Your task to perform on an android device: turn off location history Image 0: 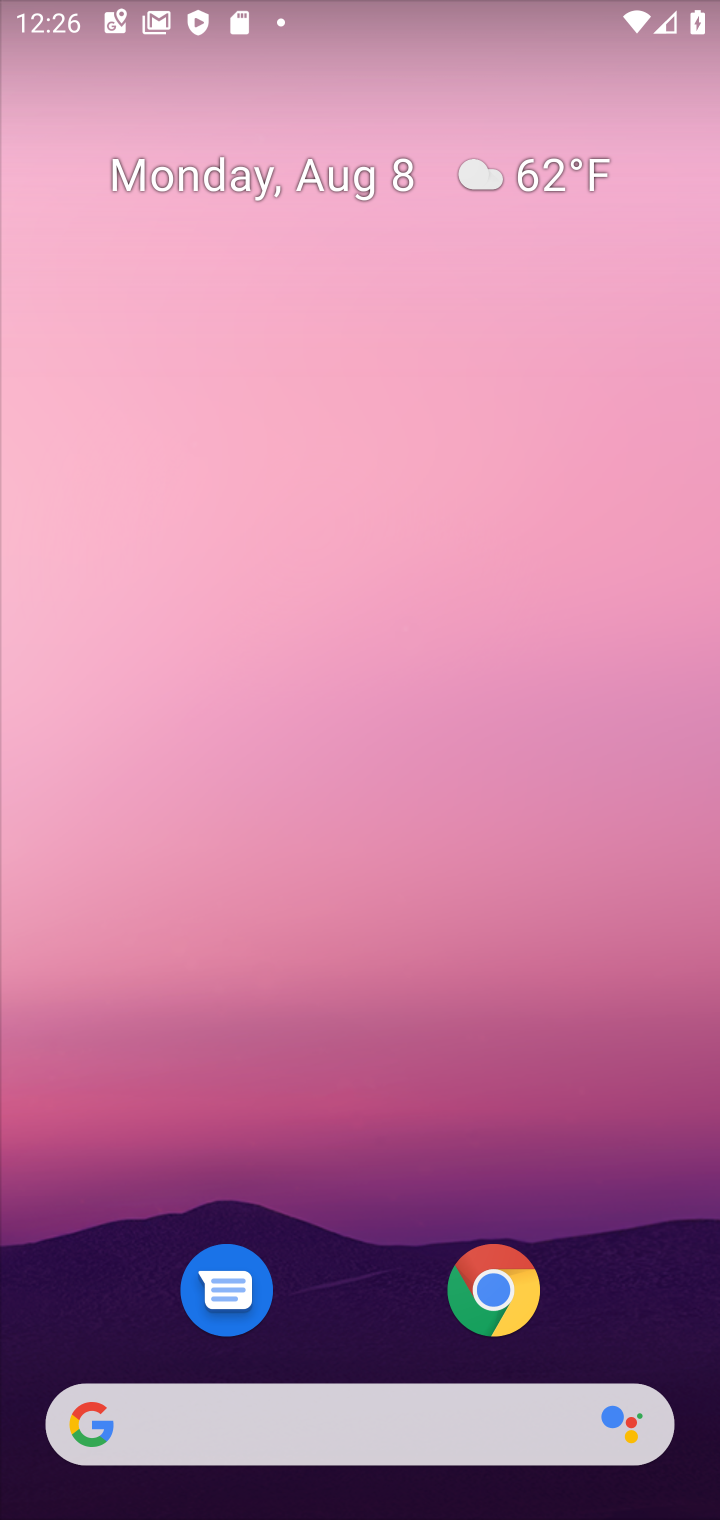
Step 0: drag from (340, 218) to (338, 136)
Your task to perform on an android device: turn off location history Image 1: 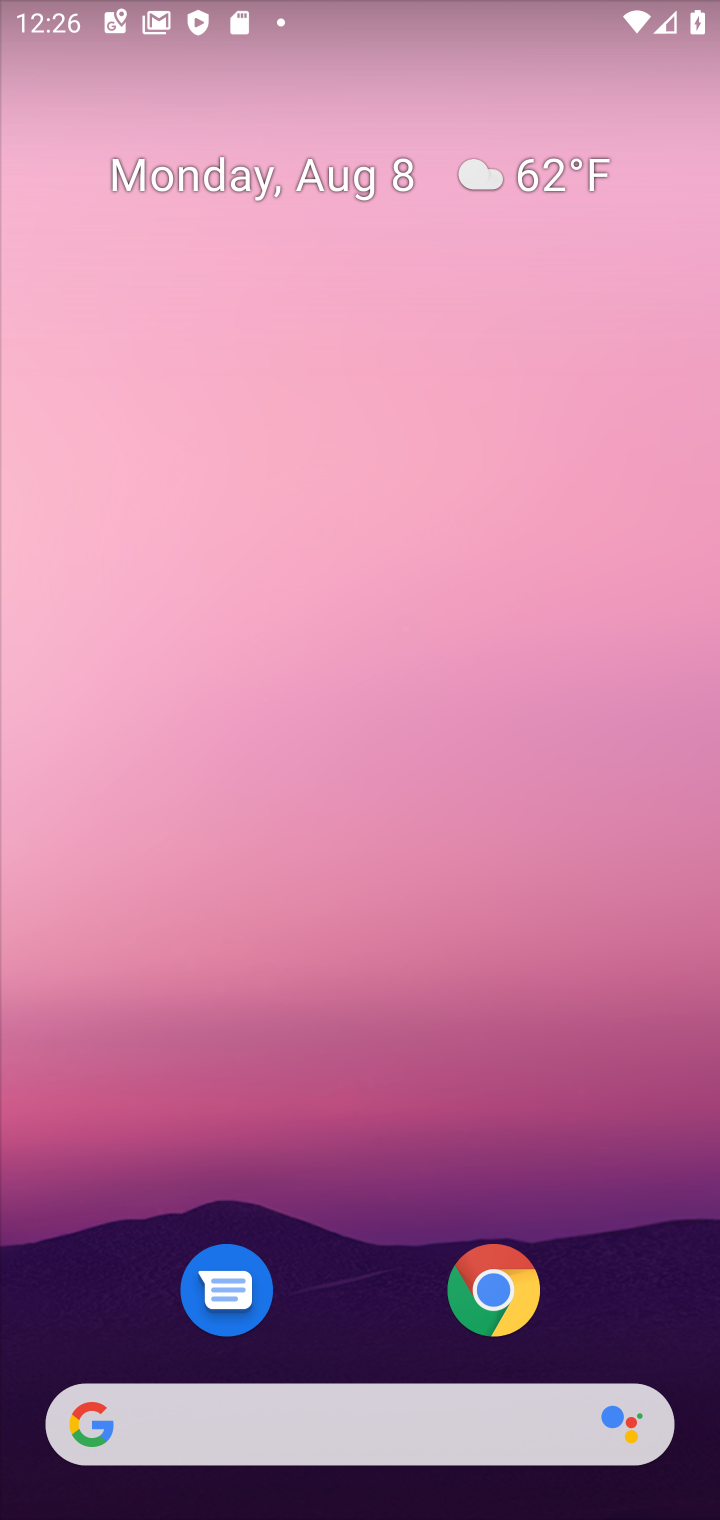
Step 1: drag from (332, 806) to (385, 198)
Your task to perform on an android device: turn off location history Image 2: 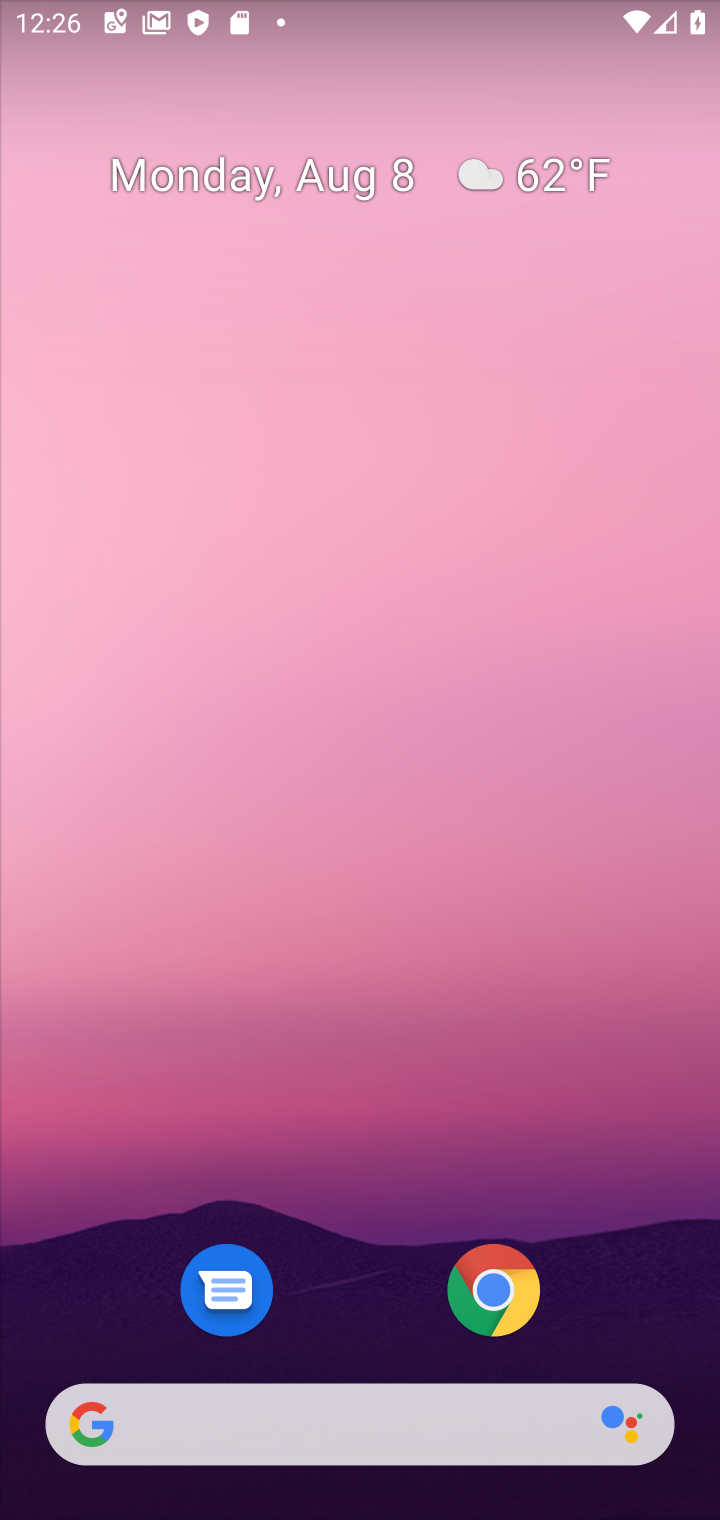
Step 2: drag from (333, 1346) to (355, 161)
Your task to perform on an android device: turn off location history Image 3: 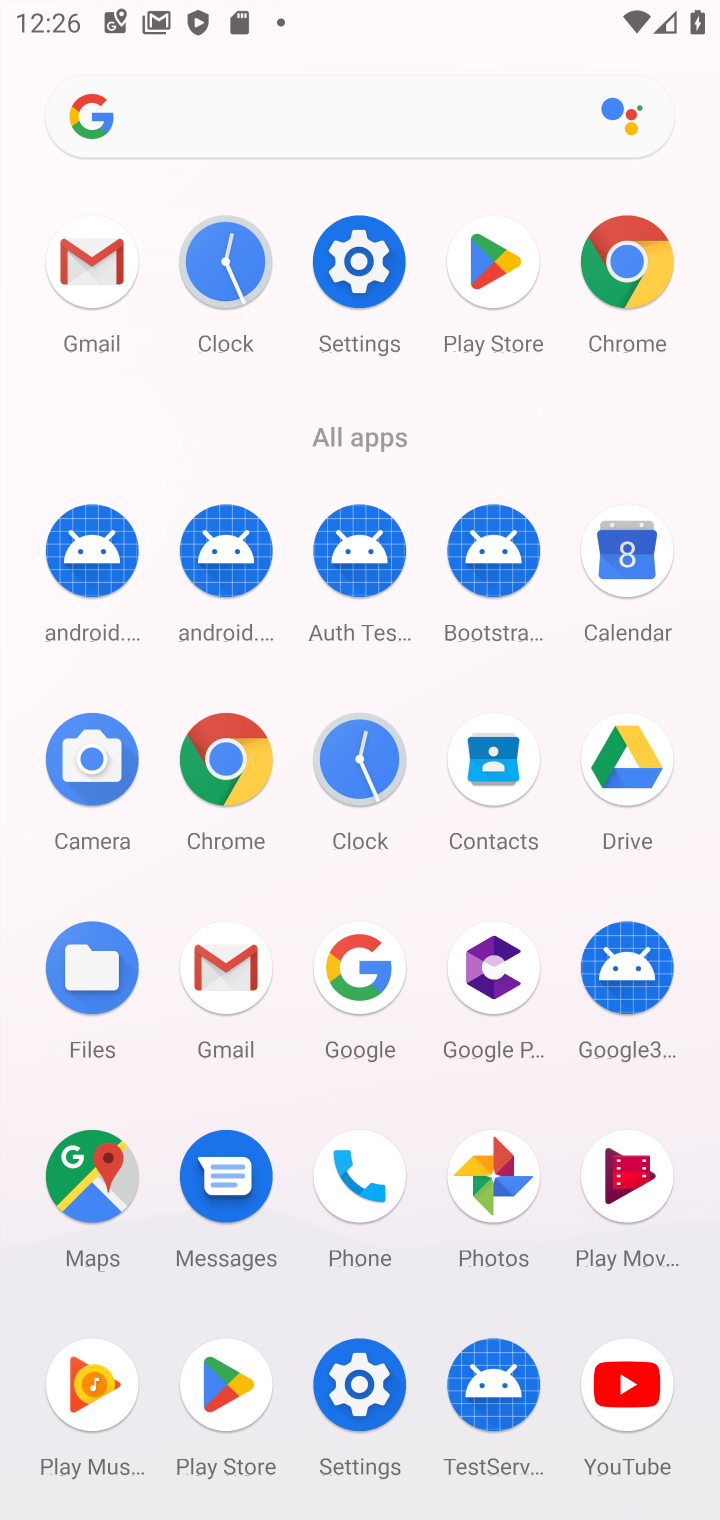
Step 3: click (356, 276)
Your task to perform on an android device: turn off location history Image 4: 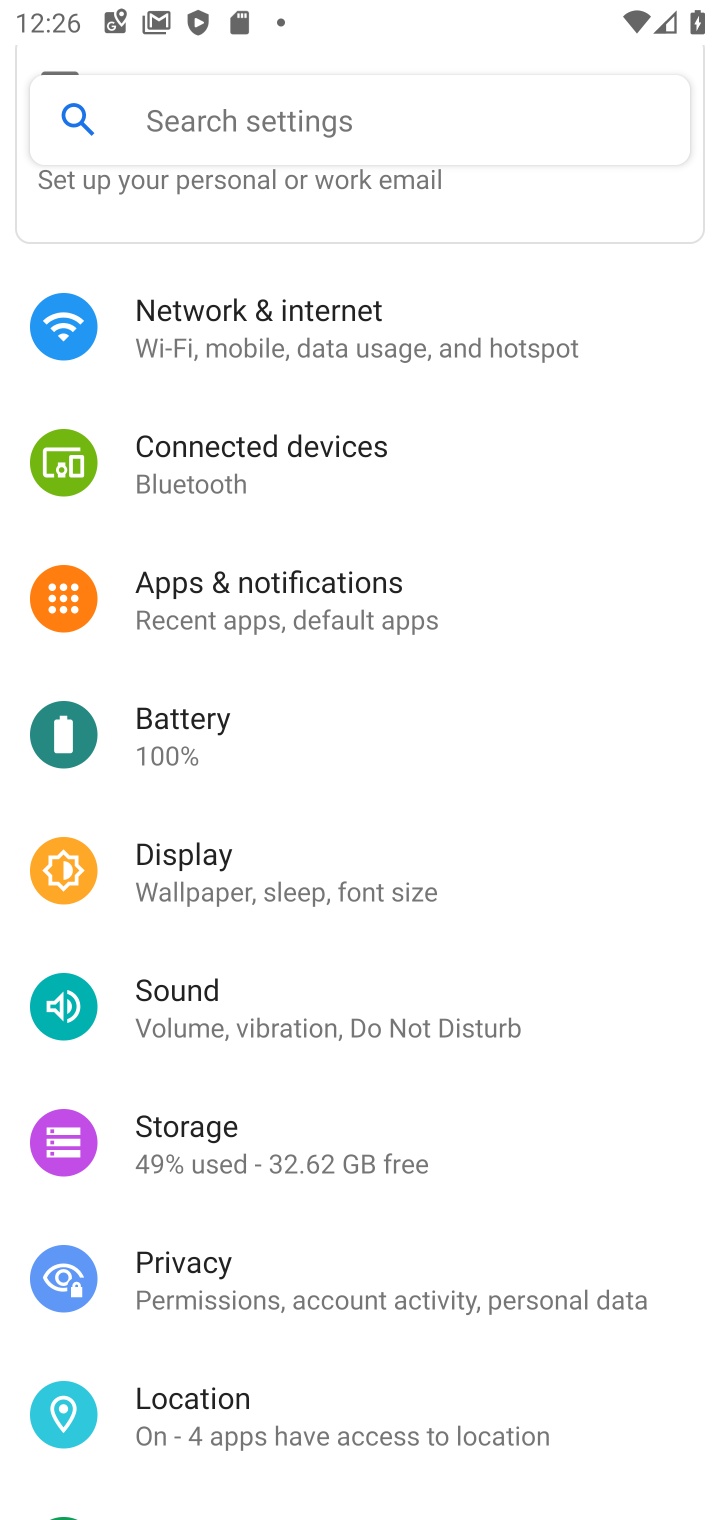
Step 4: click (218, 1396)
Your task to perform on an android device: turn off location history Image 5: 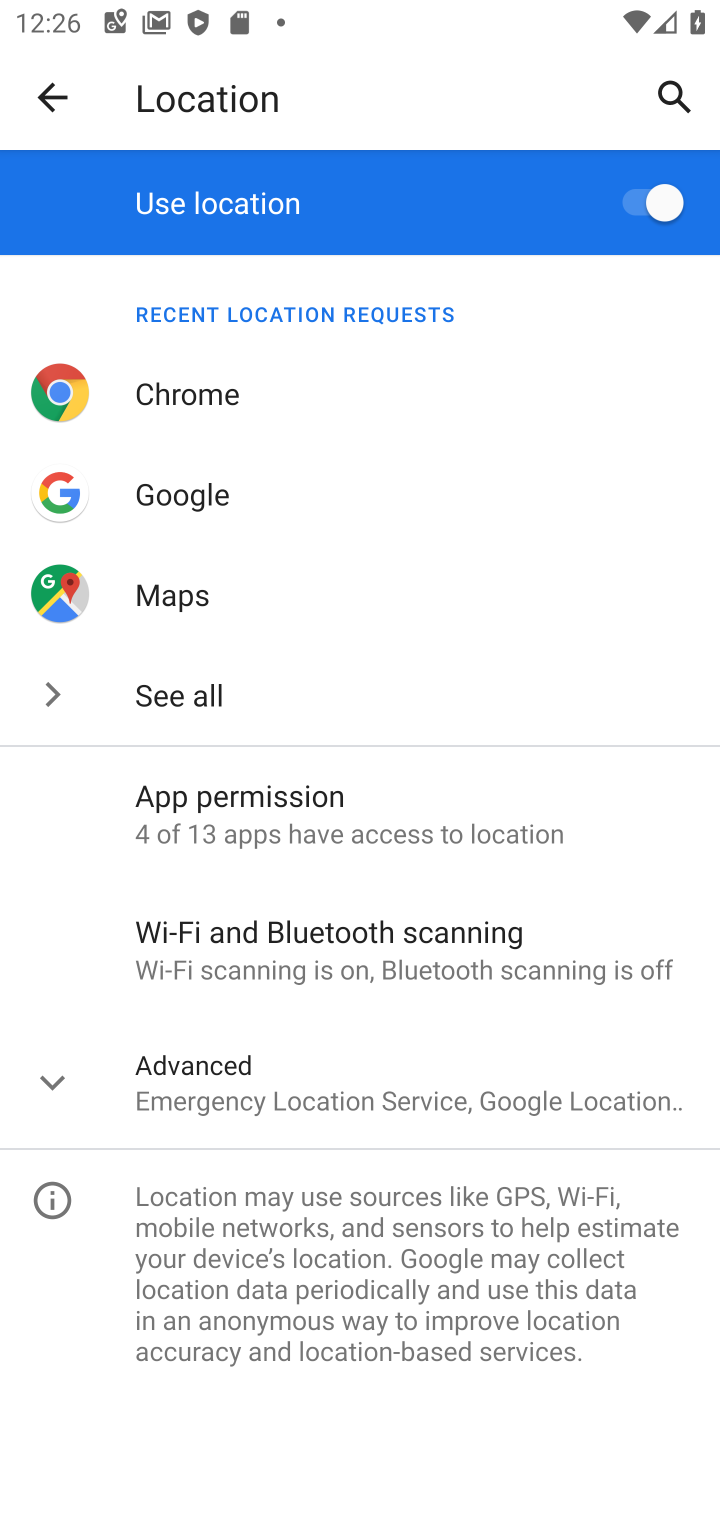
Step 5: click (370, 1114)
Your task to perform on an android device: turn off location history Image 6: 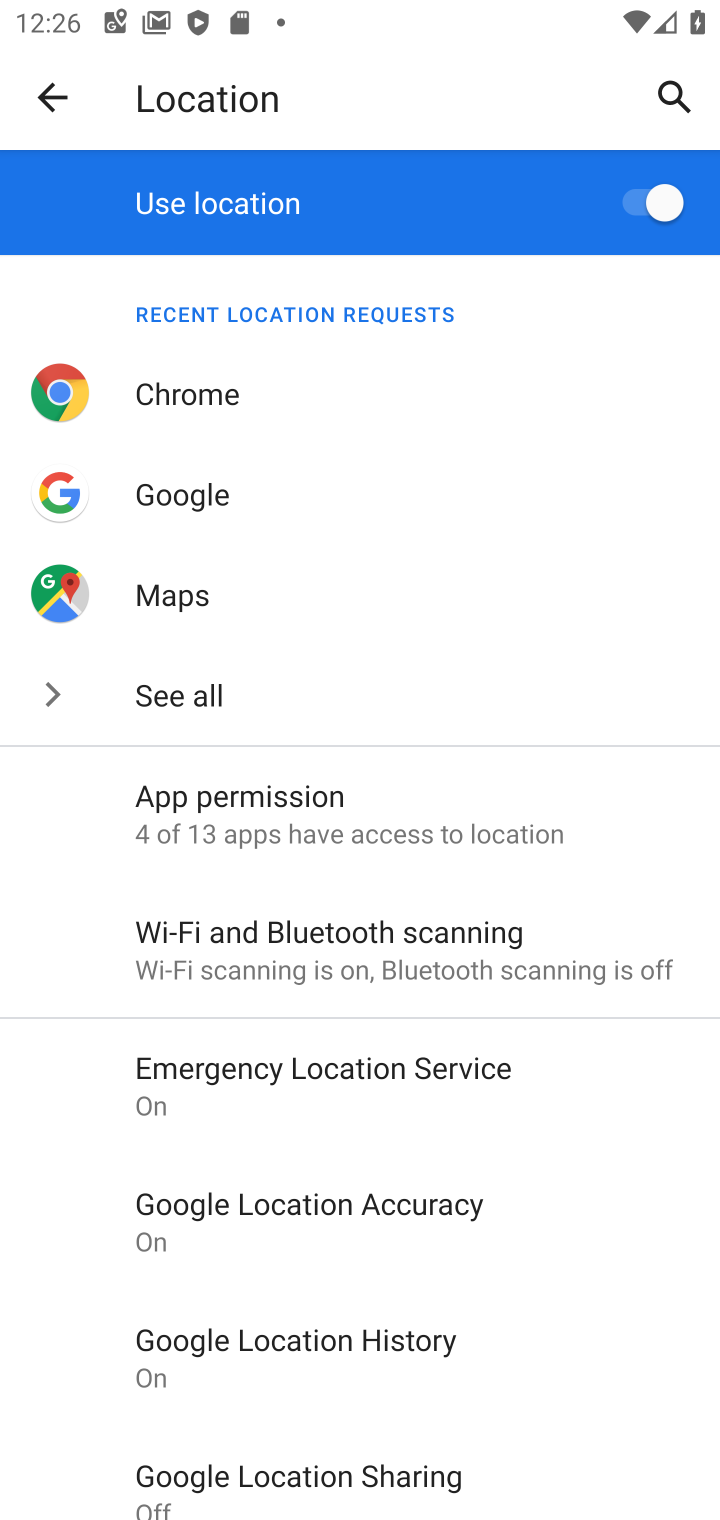
Step 6: click (301, 1319)
Your task to perform on an android device: turn off location history Image 7: 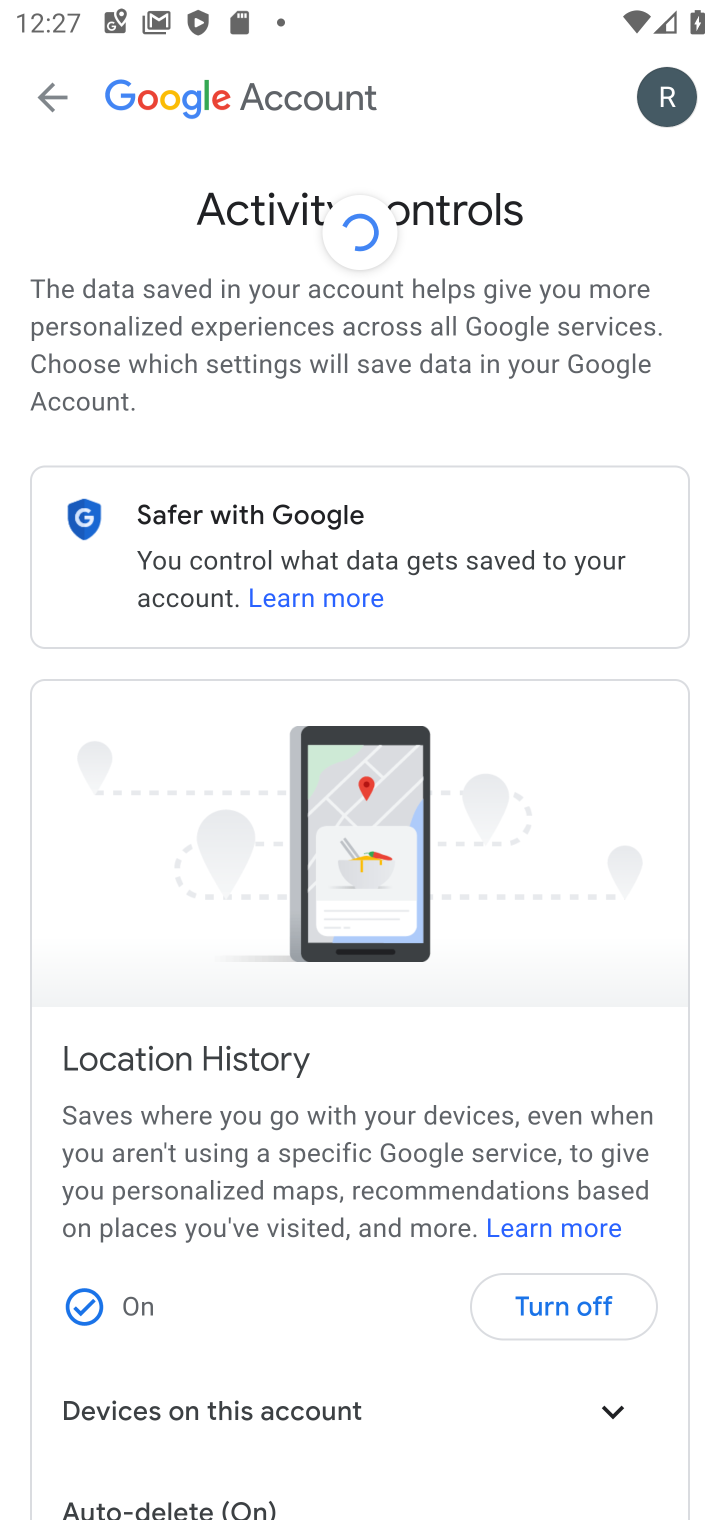
Step 7: click (547, 1292)
Your task to perform on an android device: turn off location history Image 8: 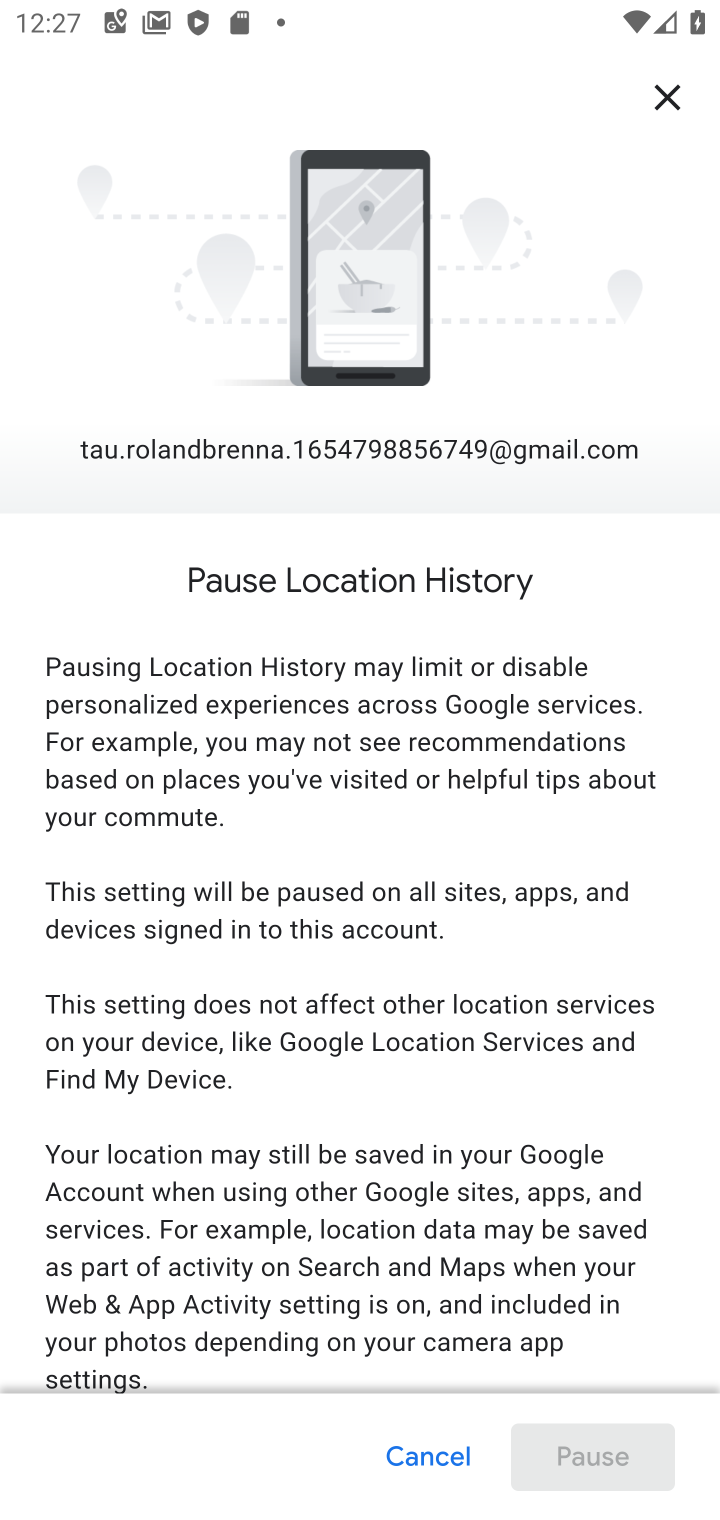
Step 8: drag from (530, 1223) to (519, 607)
Your task to perform on an android device: turn off location history Image 9: 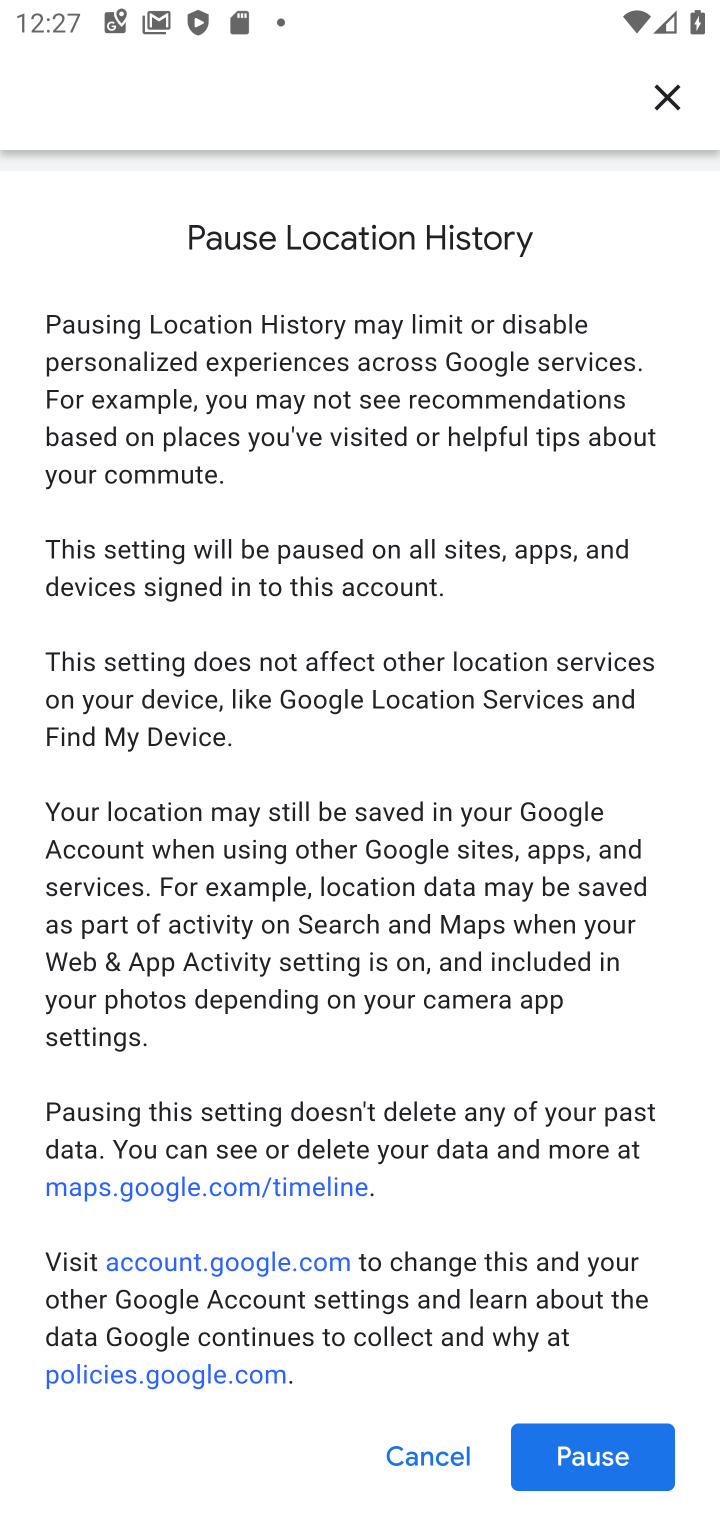
Step 9: click (579, 1456)
Your task to perform on an android device: turn off location history Image 10: 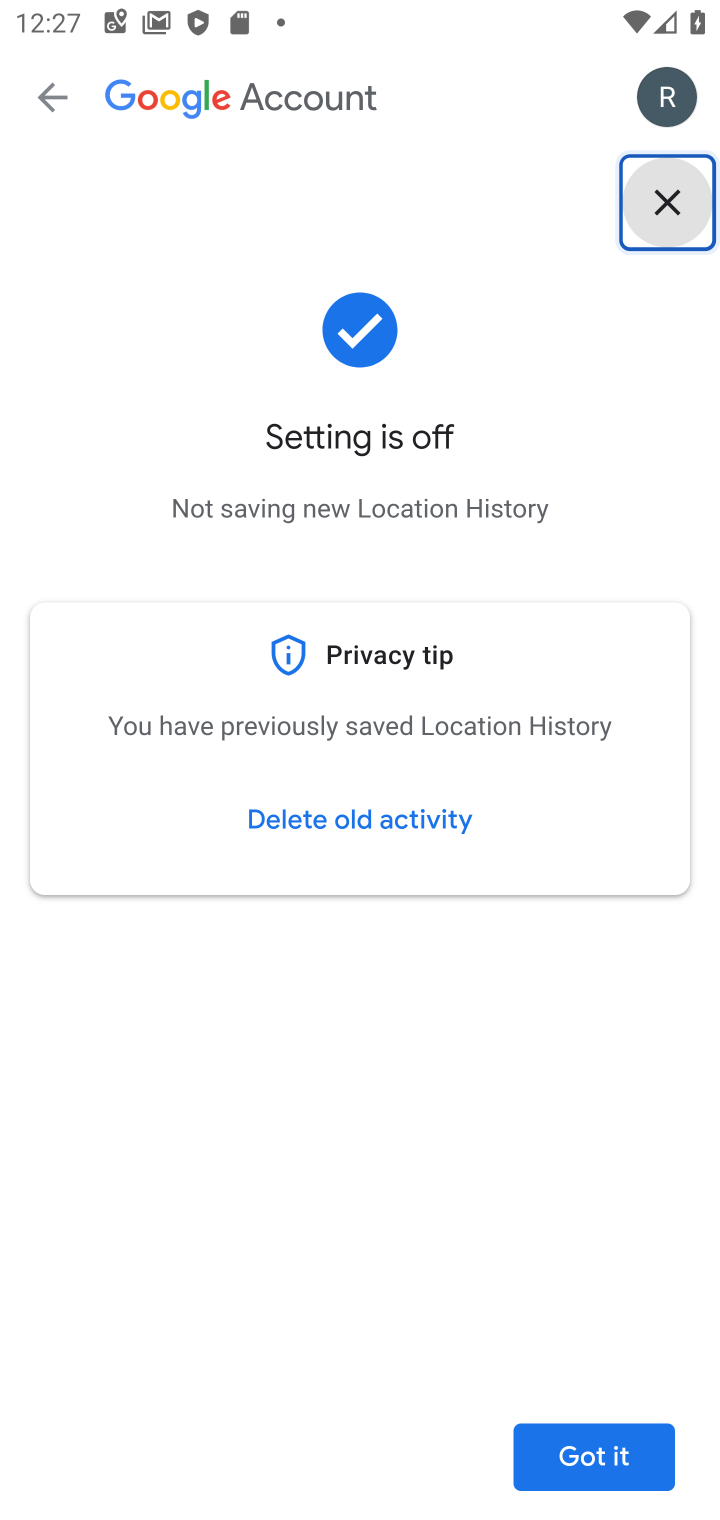
Step 10: click (594, 1467)
Your task to perform on an android device: turn off location history Image 11: 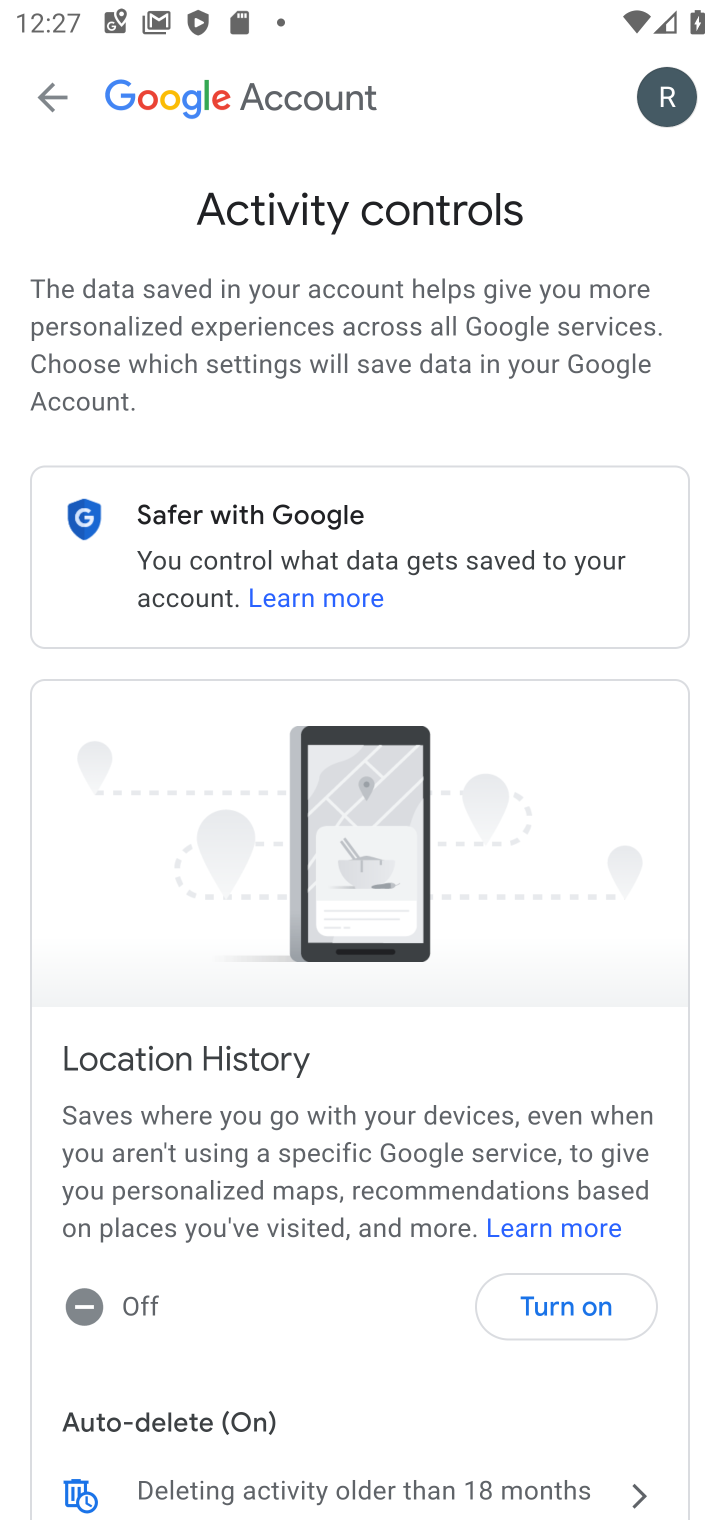
Step 11: task complete